Your task to perform on an android device: search for starred emails in the gmail app Image 0: 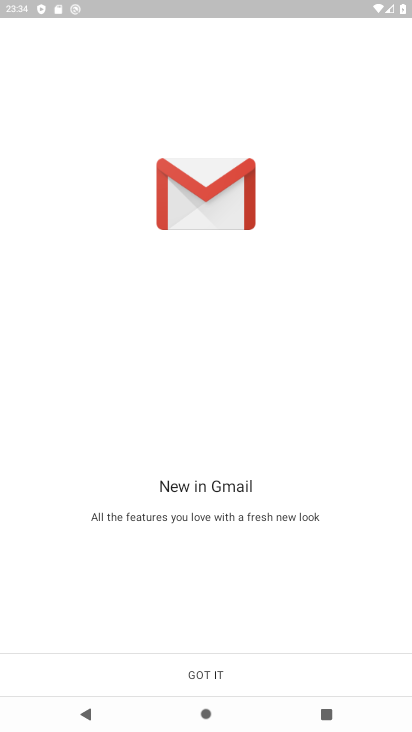
Step 0: press home button
Your task to perform on an android device: search for starred emails in the gmail app Image 1: 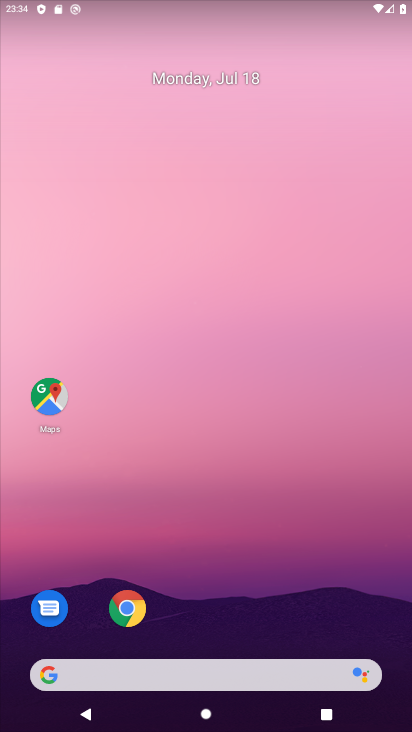
Step 1: drag from (219, 678) to (256, 225)
Your task to perform on an android device: search for starred emails in the gmail app Image 2: 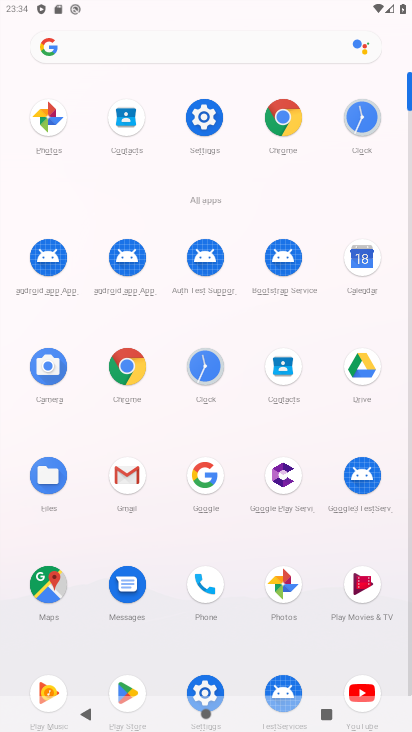
Step 2: click (128, 471)
Your task to perform on an android device: search for starred emails in the gmail app Image 3: 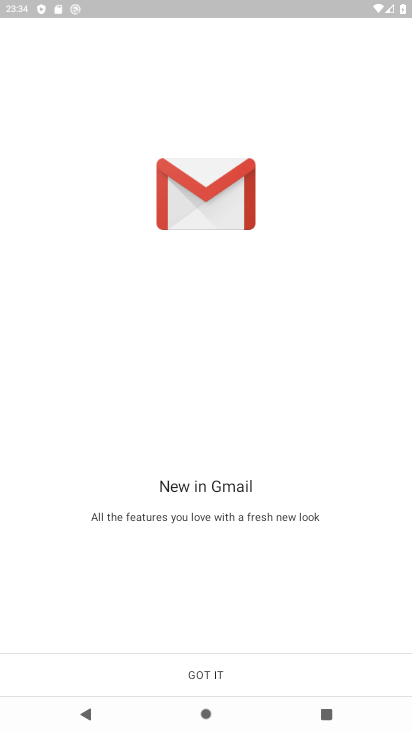
Step 3: click (211, 674)
Your task to perform on an android device: search for starred emails in the gmail app Image 4: 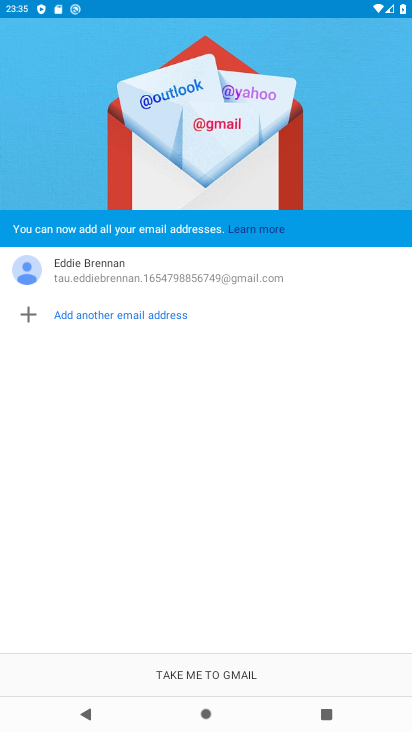
Step 4: click (211, 674)
Your task to perform on an android device: search for starred emails in the gmail app Image 5: 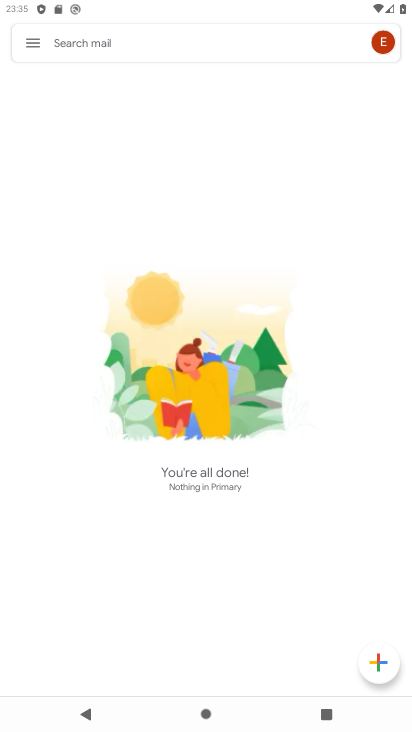
Step 5: click (29, 41)
Your task to perform on an android device: search for starred emails in the gmail app Image 6: 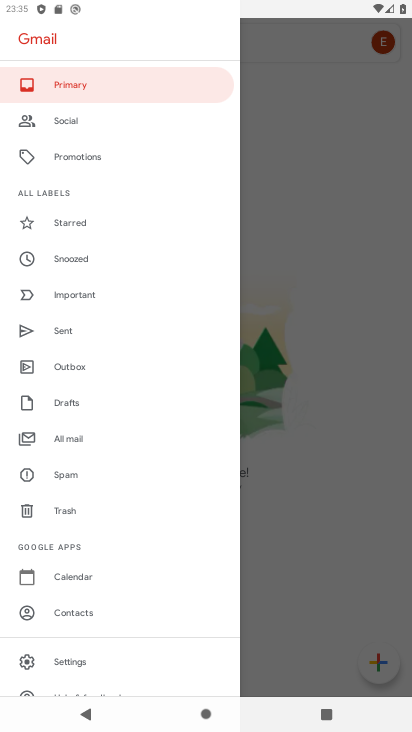
Step 6: click (82, 221)
Your task to perform on an android device: search for starred emails in the gmail app Image 7: 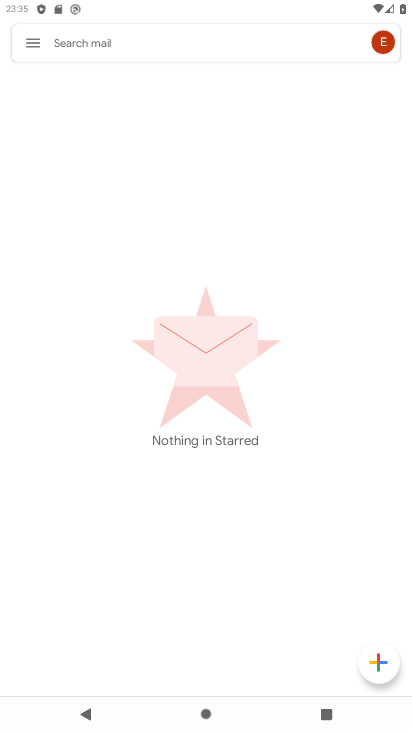
Step 7: click (35, 42)
Your task to perform on an android device: search for starred emails in the gmail app Image 8: 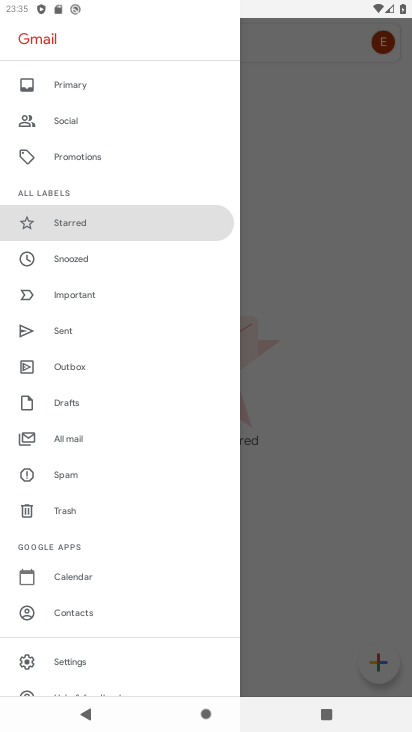
Step 8: click (92, 264)
Your task to perform on an android device: search for starred emails in the gmail app Image 9: 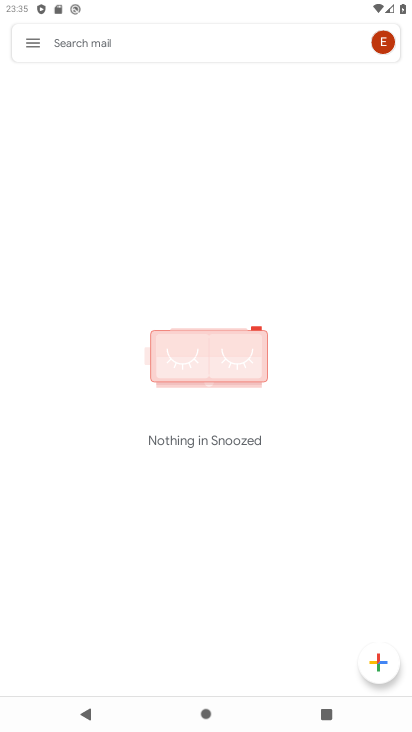
Step 9: click (35, 43)
Your task to perform on an android device: search for starred emails in the gmail app Image 10: 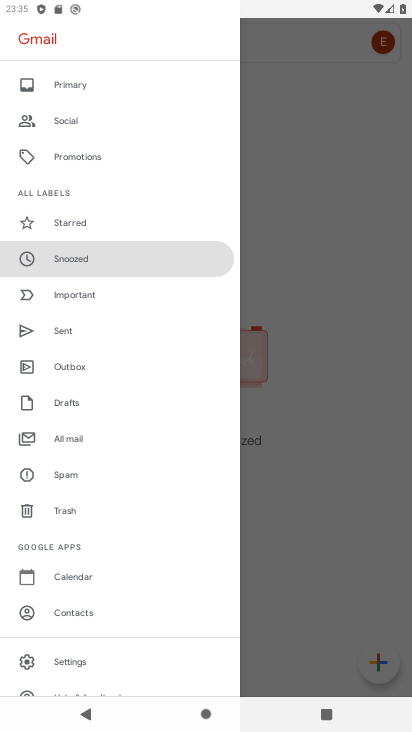
Step 10: click (85, 309)
Your task to perform on an android device: search for starred emails in the gmail app Image 11: 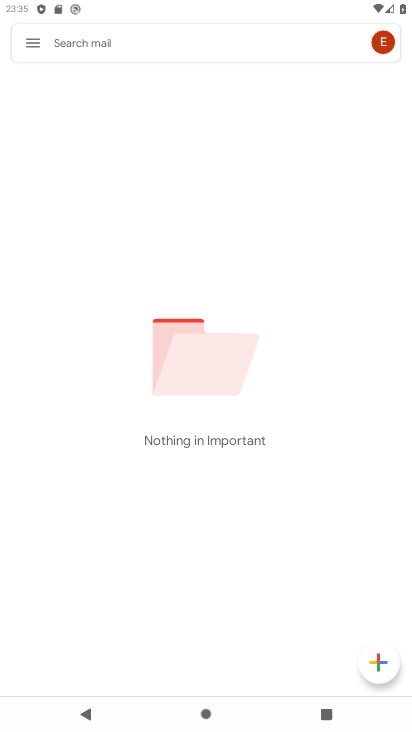
Step 11: click (26, 46)
Your task to perform on an android device: search for starred emails in the gmail app Image 12: 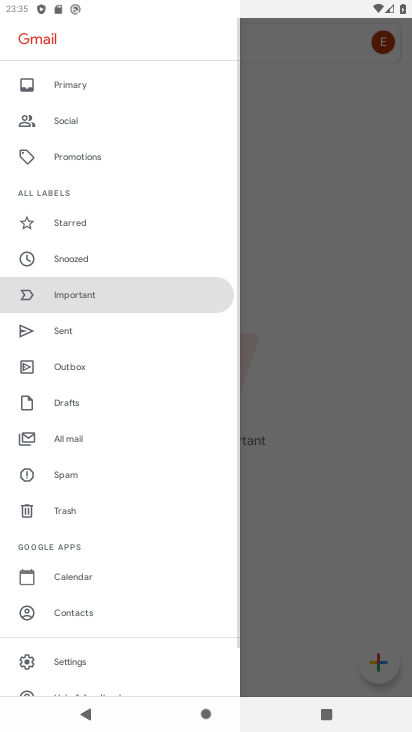
Step 12: click (45, 330)
Your task to perform on an android device: search for starred emails in the gmail app Image 13: 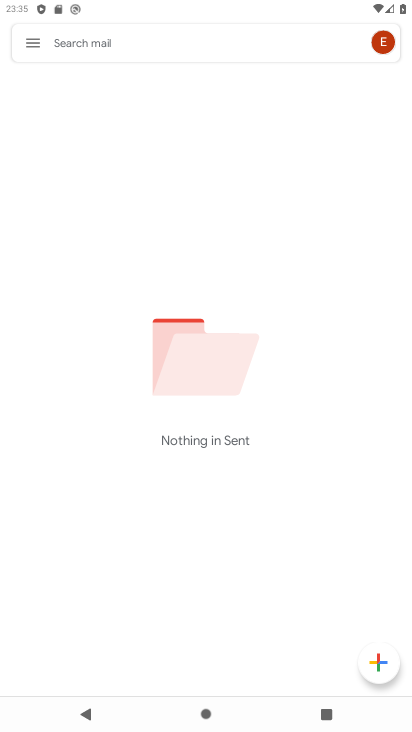
Step 13: click (36, 47)
Your task to perform on an android device: search for starred emails in the gmail app Image 14: 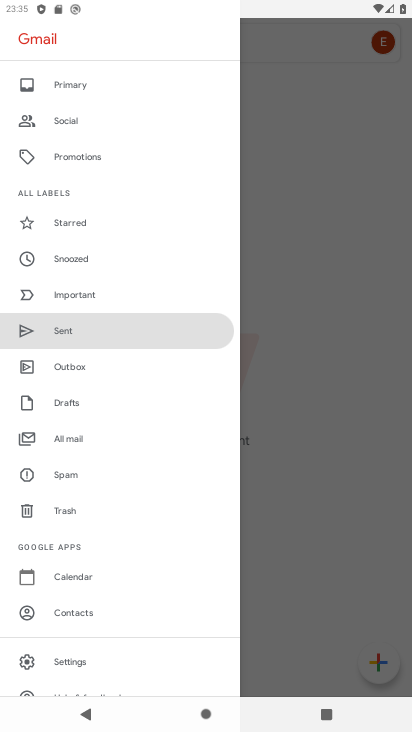
Step 14: click (69, 373)
Your task to perform on an android device: search for starred emails in the gmail app Image 15: 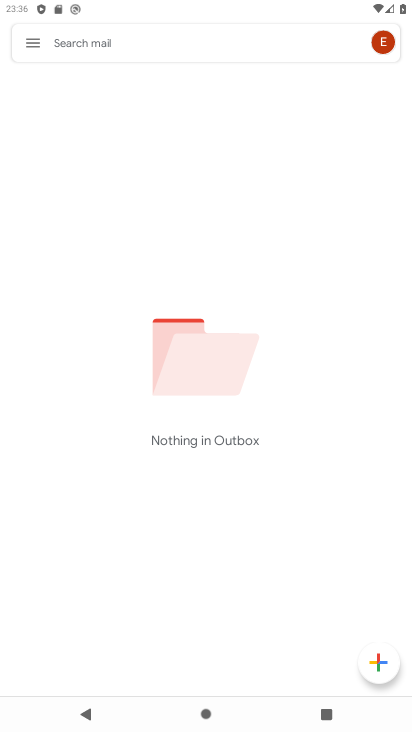
Step 15: task complete